Your task to perform on an android device: Open location settings Image 0: 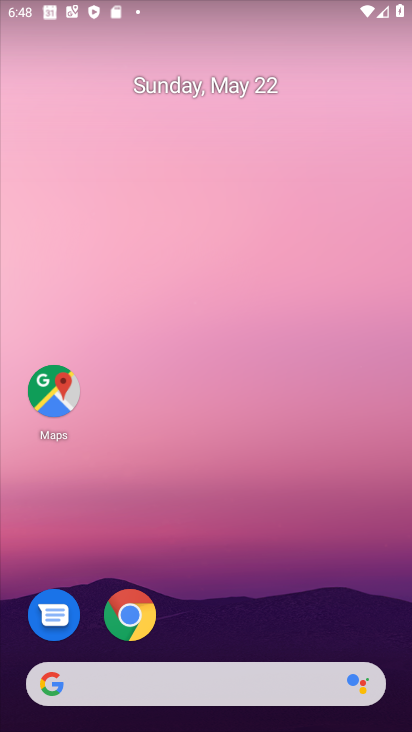
Step 0: drag from (258, 558) to (161, 50)
Your task to perform on an android device: Open location settings Image 1: 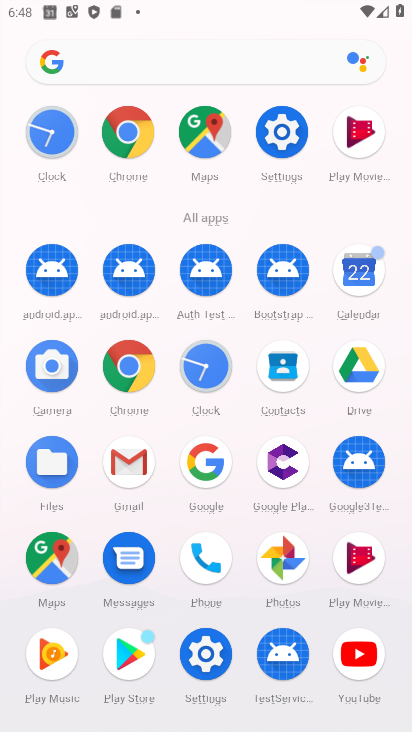
Step 1: click (283, 133)
Your task to perform on an android device: Open location settings Image 2: 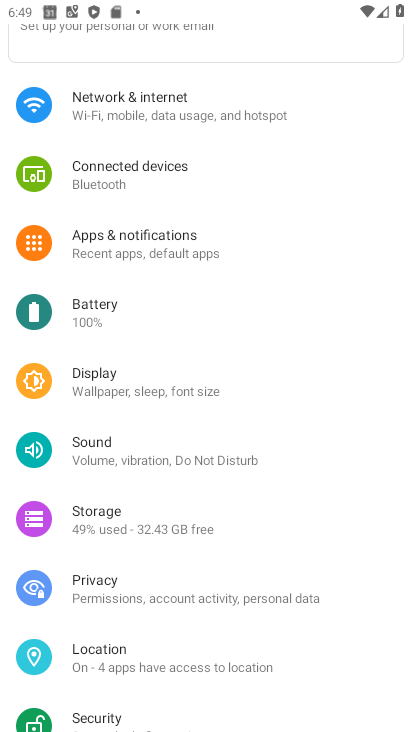
Step 2: click (110, 657)
Your task to perform on an android device: Open location settings Image 3: 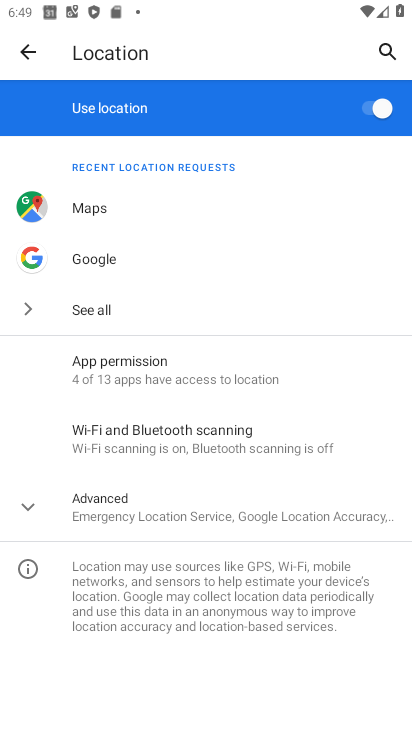
Step 3: task complete